Your task to perform on an android device: allow notifications from all sites in the chrome app Image 0: 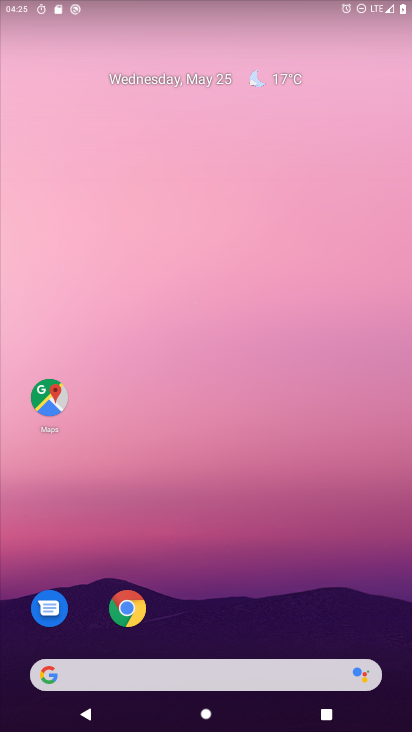
Step 0: click (120, 603)
Your task to perform on an android device: allow notifications from all sites in the chrome app Image 1: 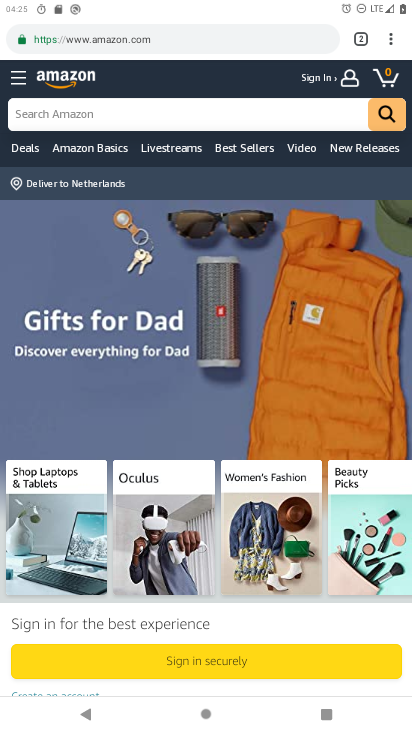
Step 1: drag from (393, 42) to (265, 476)
Your task to perform on an android device: allow notifications from all sites in the chrome app Image 2: 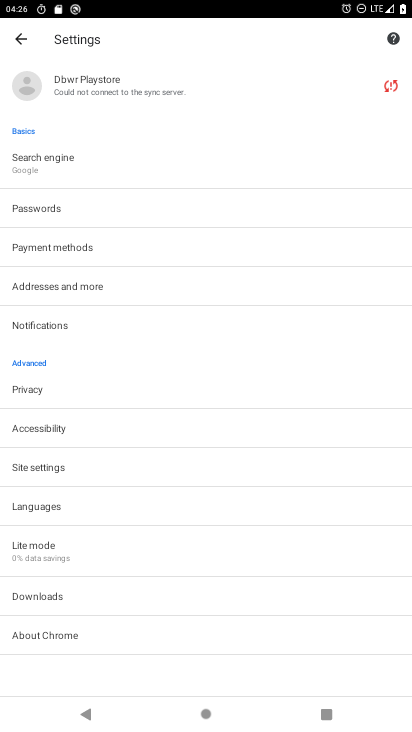
Step 2: click (44, 481)
Your task to perform on an android device: allow notifications from all sites in the chrome app Image 3: 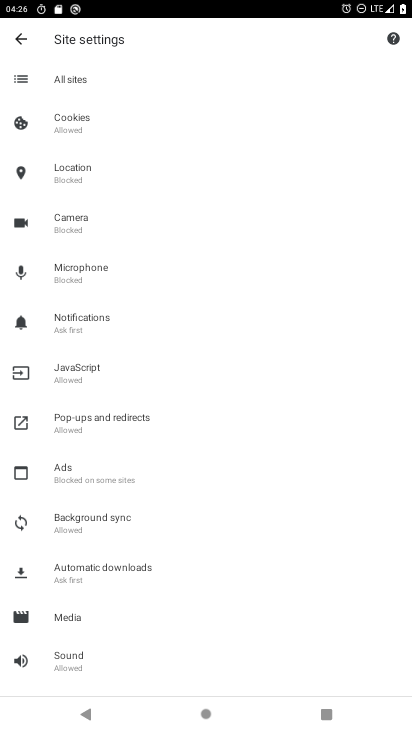
Step 3: click (81, 316)
Your task to perform on an android device: allow notifications from all sites in the chrome app Image 4: 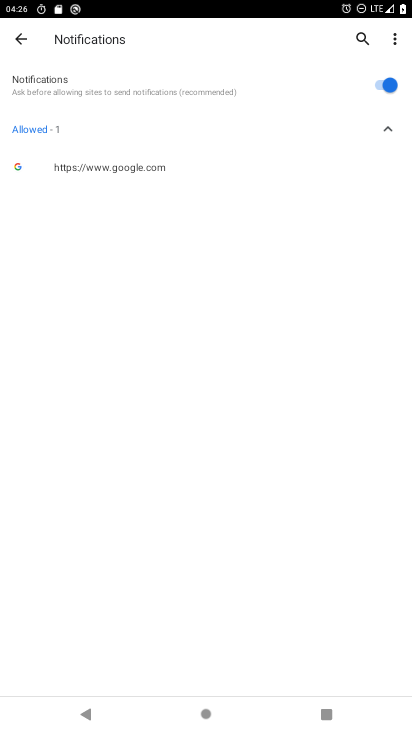
Step 4: task complete